Your task to perform on an android device: turn on wifi Image 0: 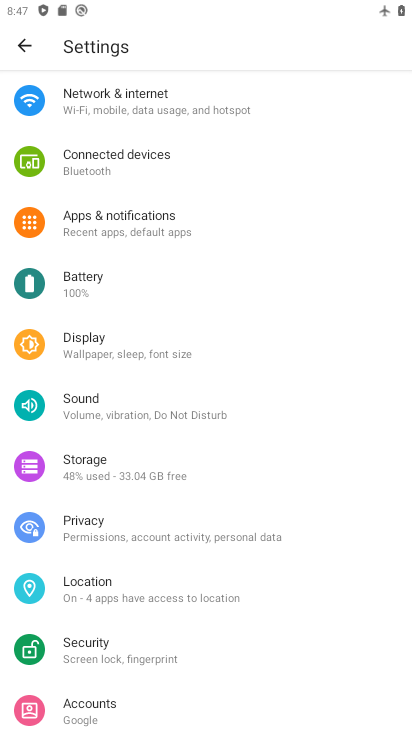
Step 0: drag from (247, 176) to (254, 455)
Your task to perform on an android device: turn on wifi Image 1: 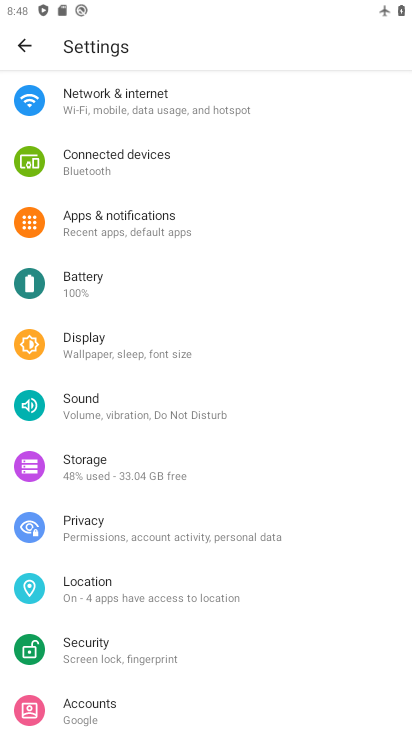
Step 1: click (119, 105)
Your task to perform on an android device: turn on wifi Image 2: 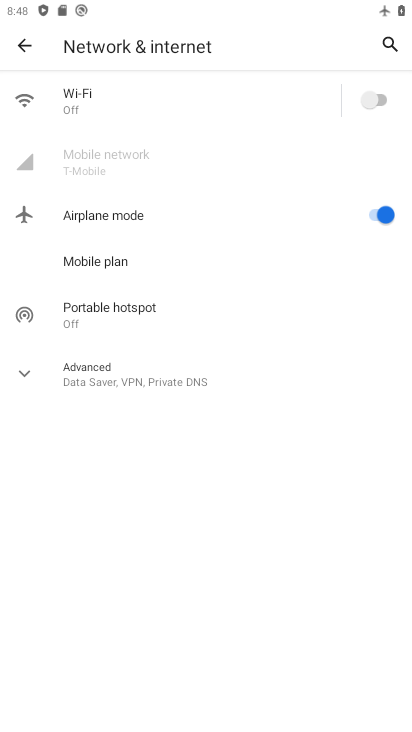
Step 2: click (376, 102)
Your task to perform on an android device: turn on wifi Image 3: 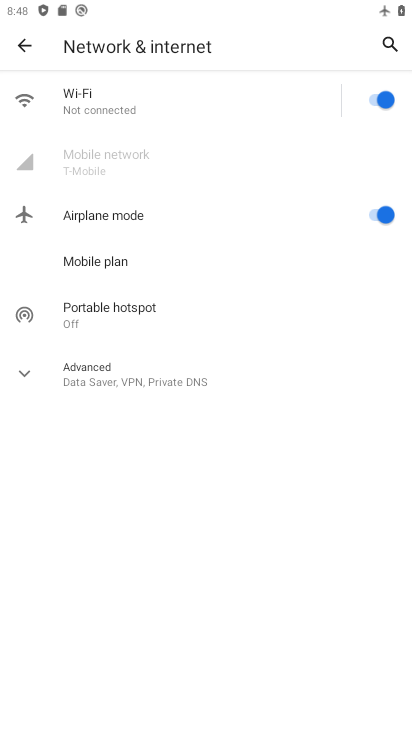
Step 3: task complete